Your task to perform on an android device: Is it going to rain tomorrow? Image 0: 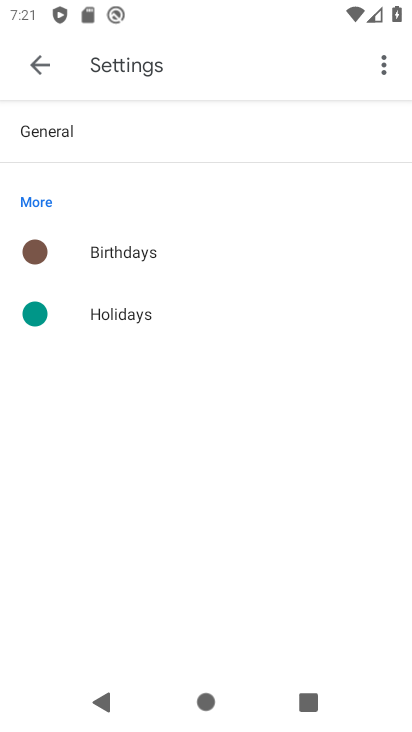
Step 0: press home button
Your task to perform on an android device: Is it going to rain tomorrow? Image 1: 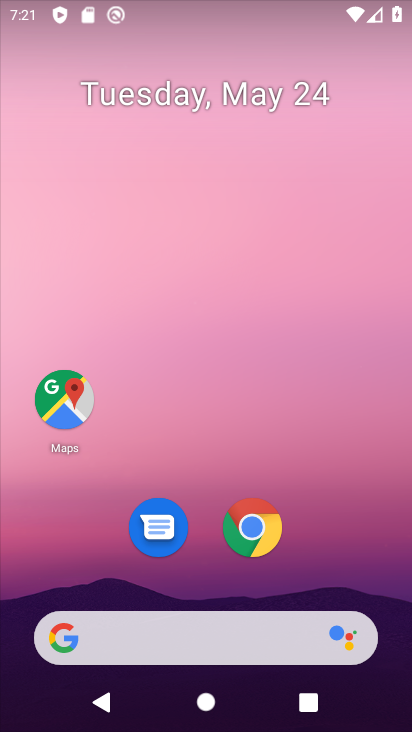
Step 1: click (255, 531)
Your task to perform on an android device: Is it going to rain tomorrow? Image 2: 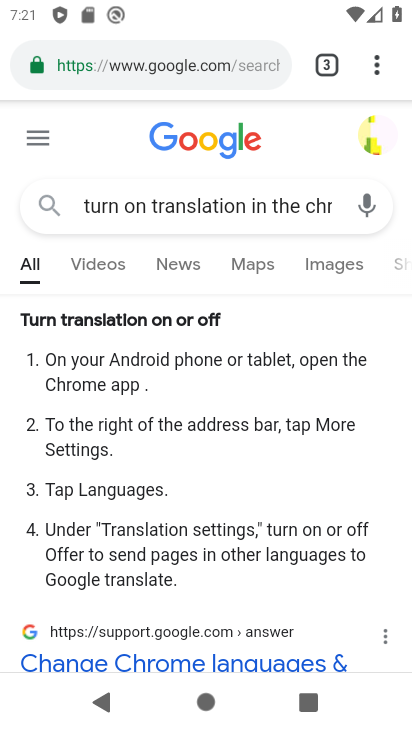
Step 2: click (377, 62)
Your task to perform on an android device: Is it going to rain tomorrow? Image 3: 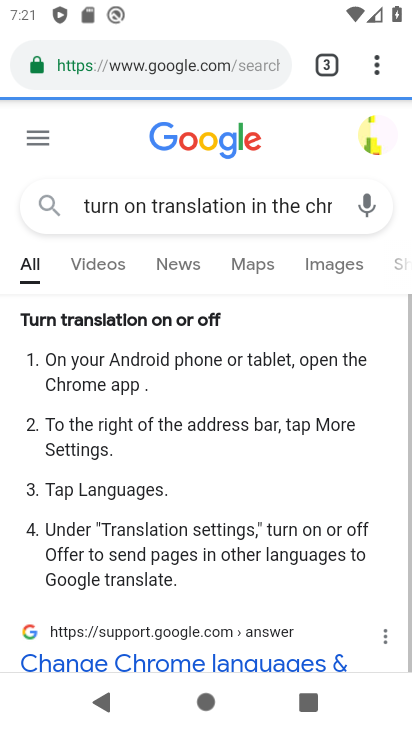
Step 3: click (369, 63)
Your task to perform on an android device: Is it going to rain tomorrow? Image 4: 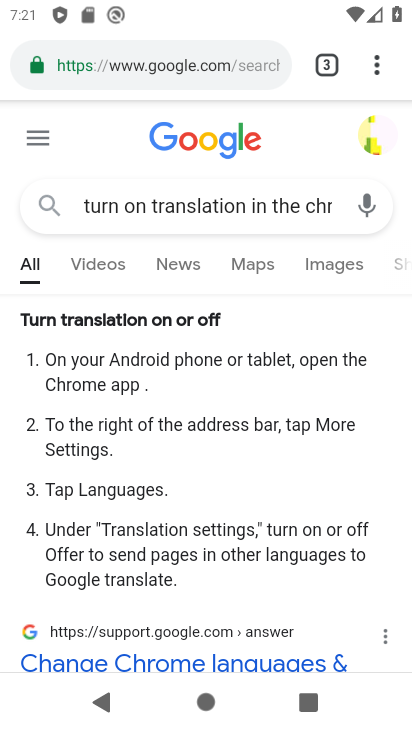
Step 4: click (372, 68)
Your task to perform on an android device: Is it going to rain tomorrow? Image 5: 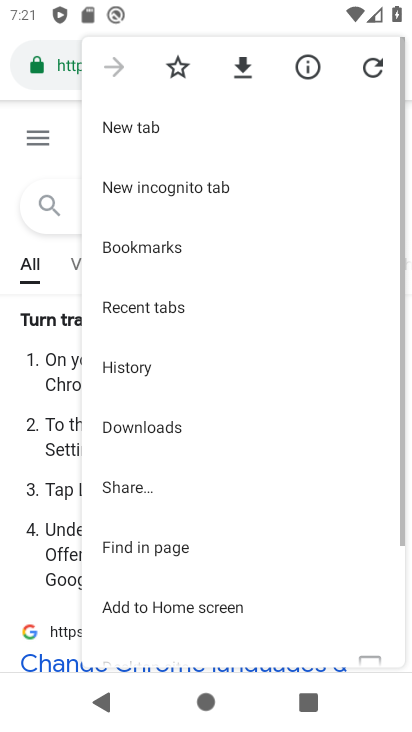
Step 5: click (174, 110)
Your task to perform on an android device: Is it going to rain tomorrow? Image 6: 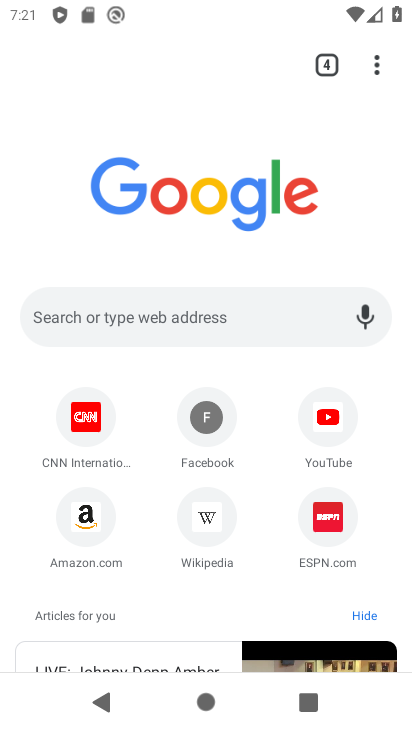
Step 6: click (166, 316)
Your task to perform on an android device: Is it going to rain tomorrow? Image 7: 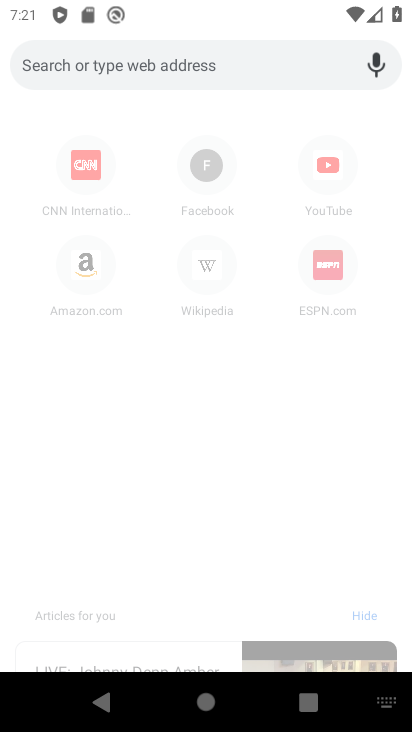
Step 7: type "Is it going to rain tomorrow?"
Your task to perform on an android device: Is it going to rain tomorrow? Image 8: 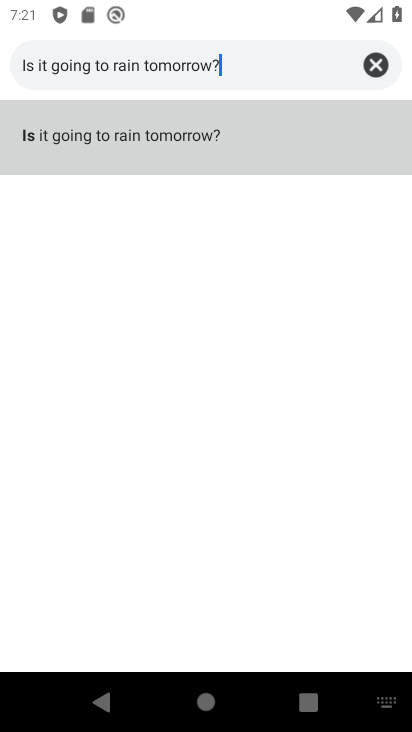
Step 8: click (173, 134)
Your task to perform on an android device: Is it going to rain tomorrow? Image 9: 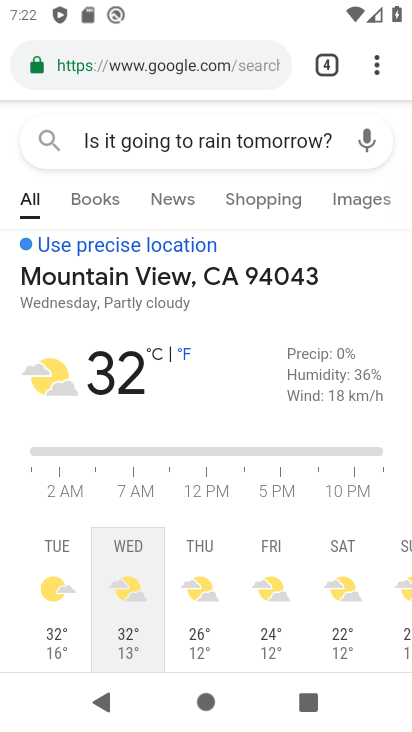
Step 9: task complete